Your task to perform on an android device: turn off data saver in the chrome app Image 0: 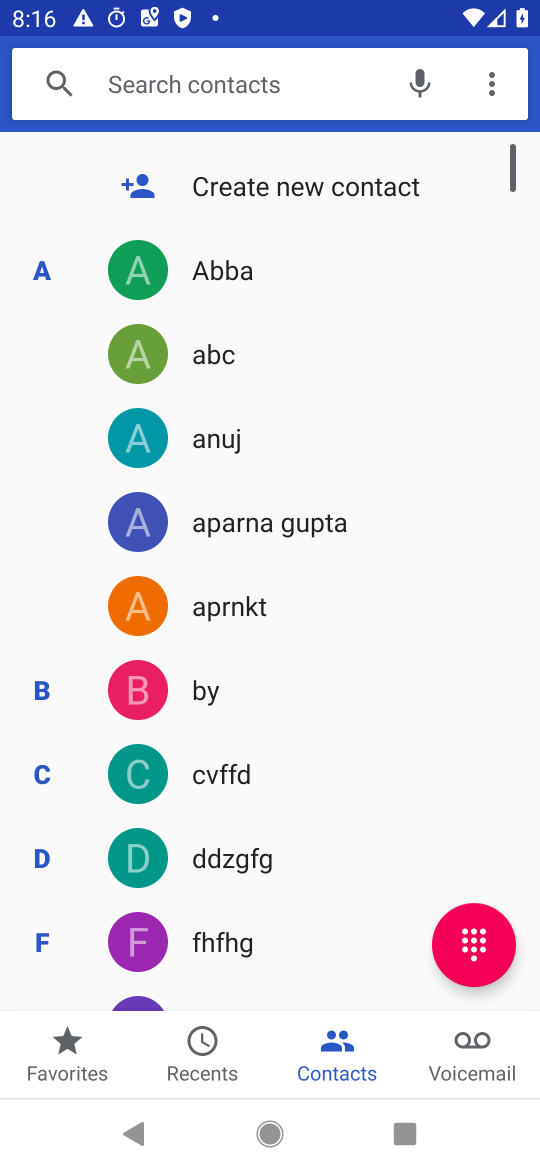
Step 0: press home button
Your task to perform on an android device: turn off data saver in the chrome app Image 1: 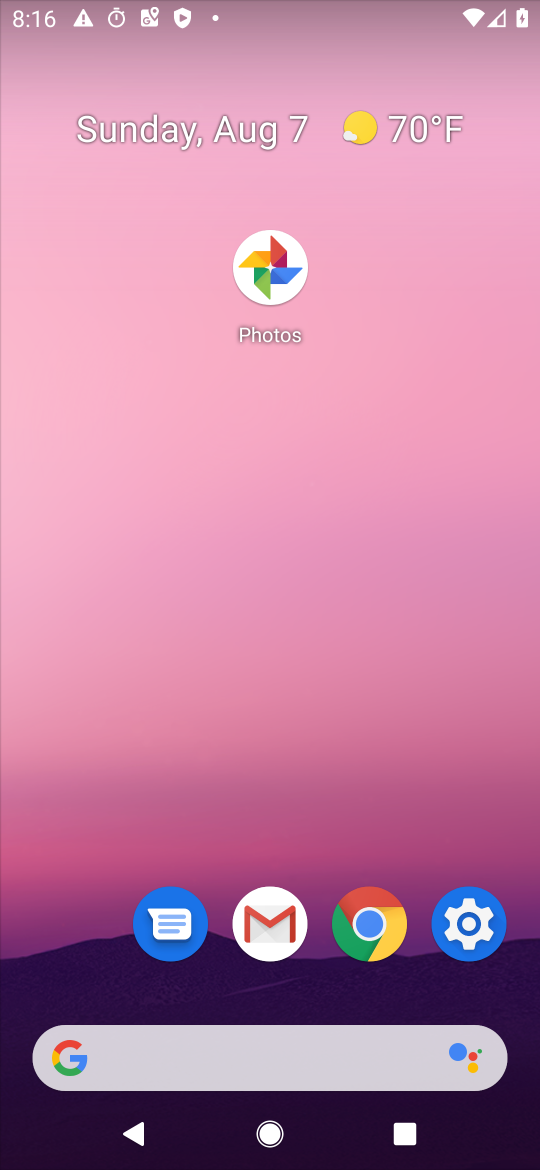
Step 1: drag from (348, 1087) to (344, 382)
Your task to perform on an android device: turn off data saver in the chrome app Image 2: 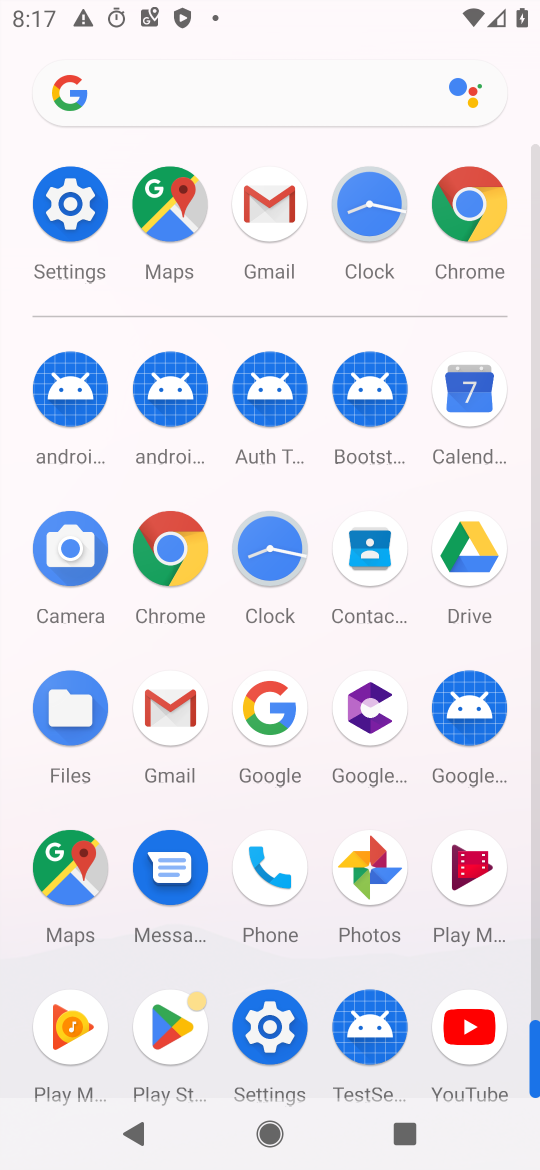
Step 2: click (456, 196)
Your task to perform on an android device: turn off data saver in the chrome app Image 3: 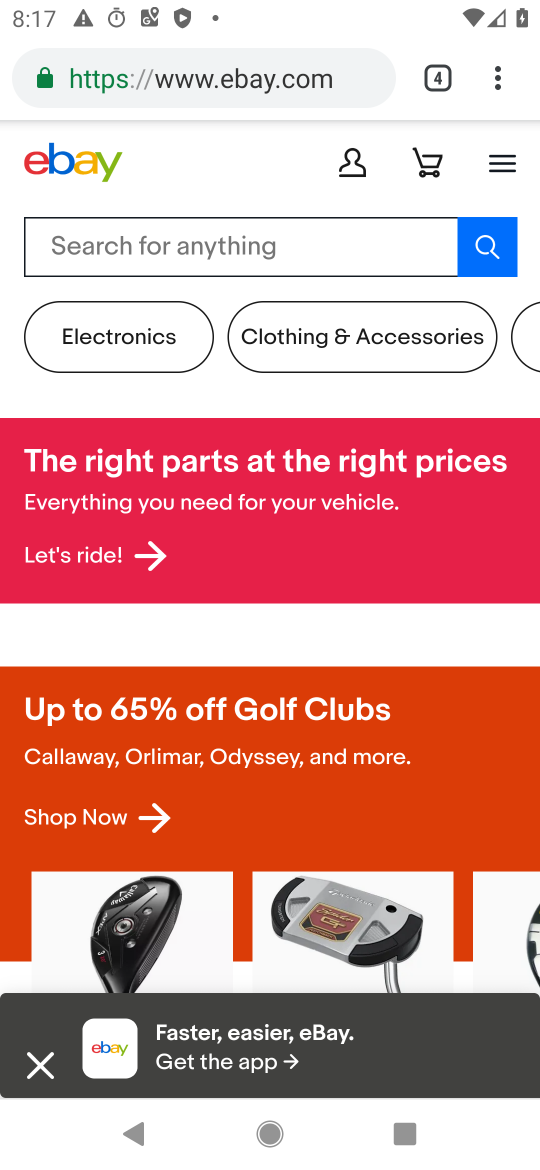
Step 3: click (496, 70)
Your task to perform on an android device: turn off data saver in the chrome app Image 4: 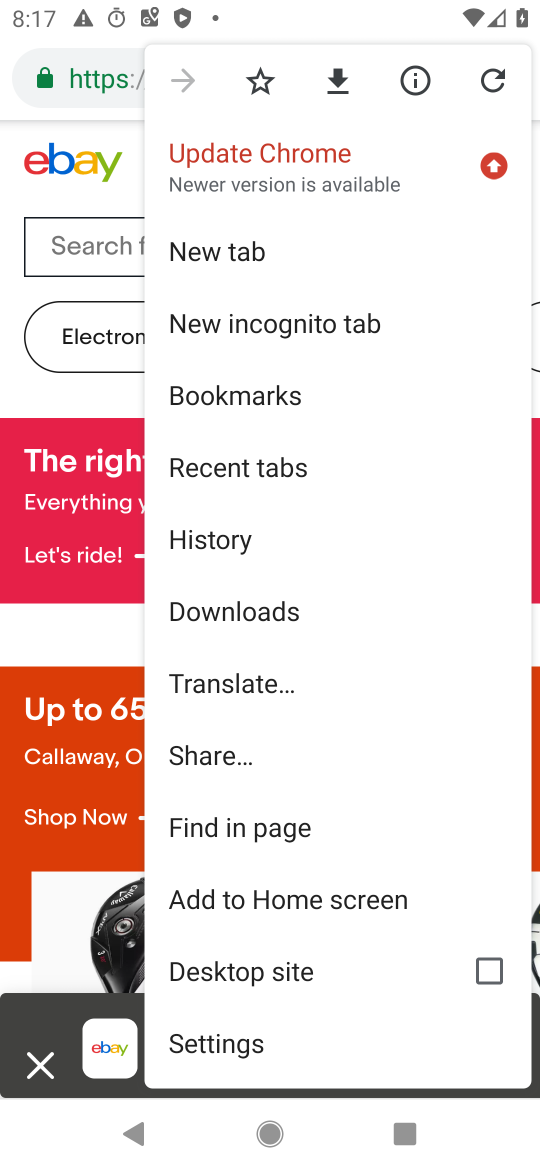
Step 4: click (245, 1030)
Your task to perform on an android device: turn off data saver in the chrome app Image 5: 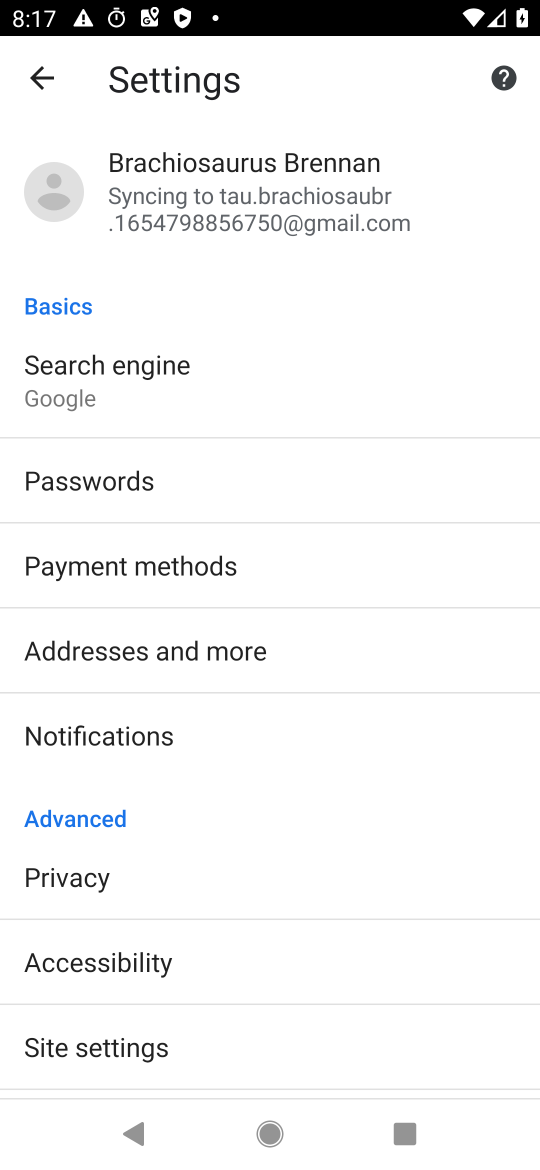
Step 5: drag from (226, 1025) to (142, 968)
Your task to perform on an android device: turn off data saver in the chrome app Image 6: 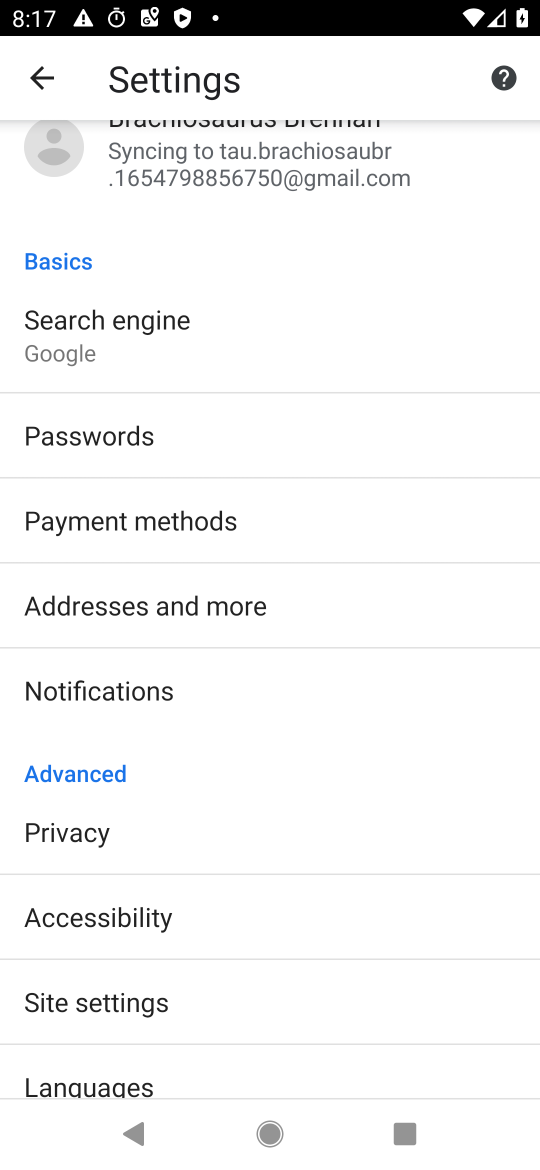
Step 6: drag from (121, 980) to (124, 791)
Your task to perform on an android device: turn off data saver in the chrome app Image 7: 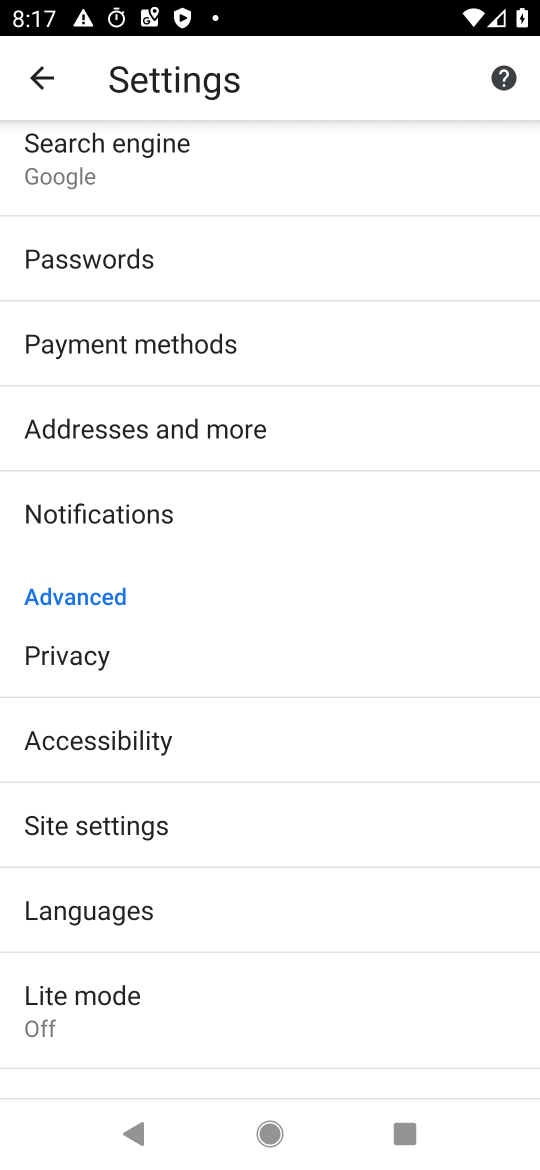
Step 7: click (135, 984)
Your task to perform on an android device: turn off data saver in the chrome app Image 8: 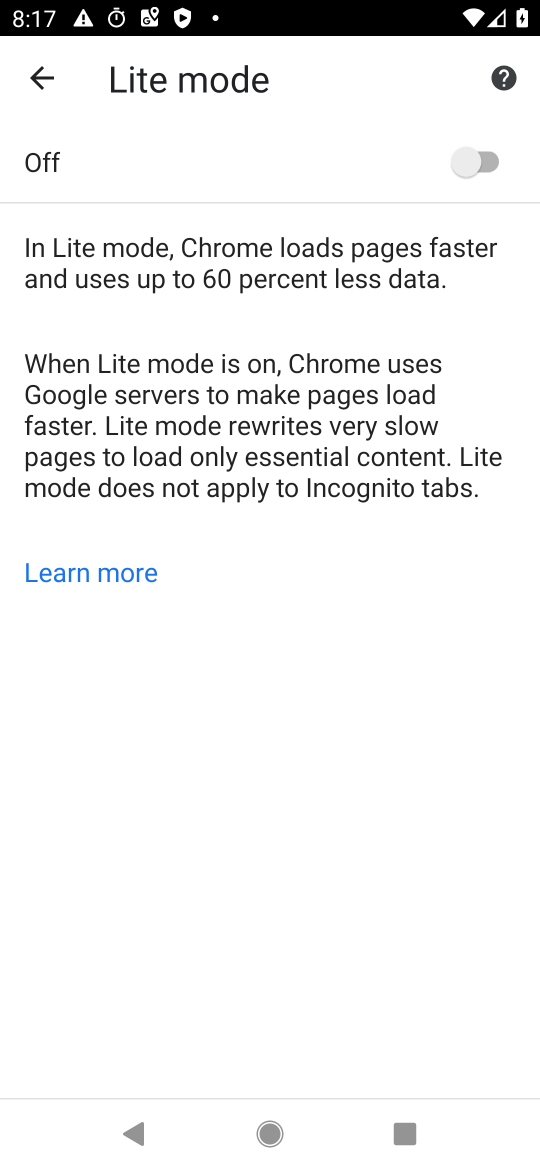
Step 8: task complete